Your task to perform on an android device: Add "razer huntsman" to the cart on ebay.com, then select checkout. Image 0: 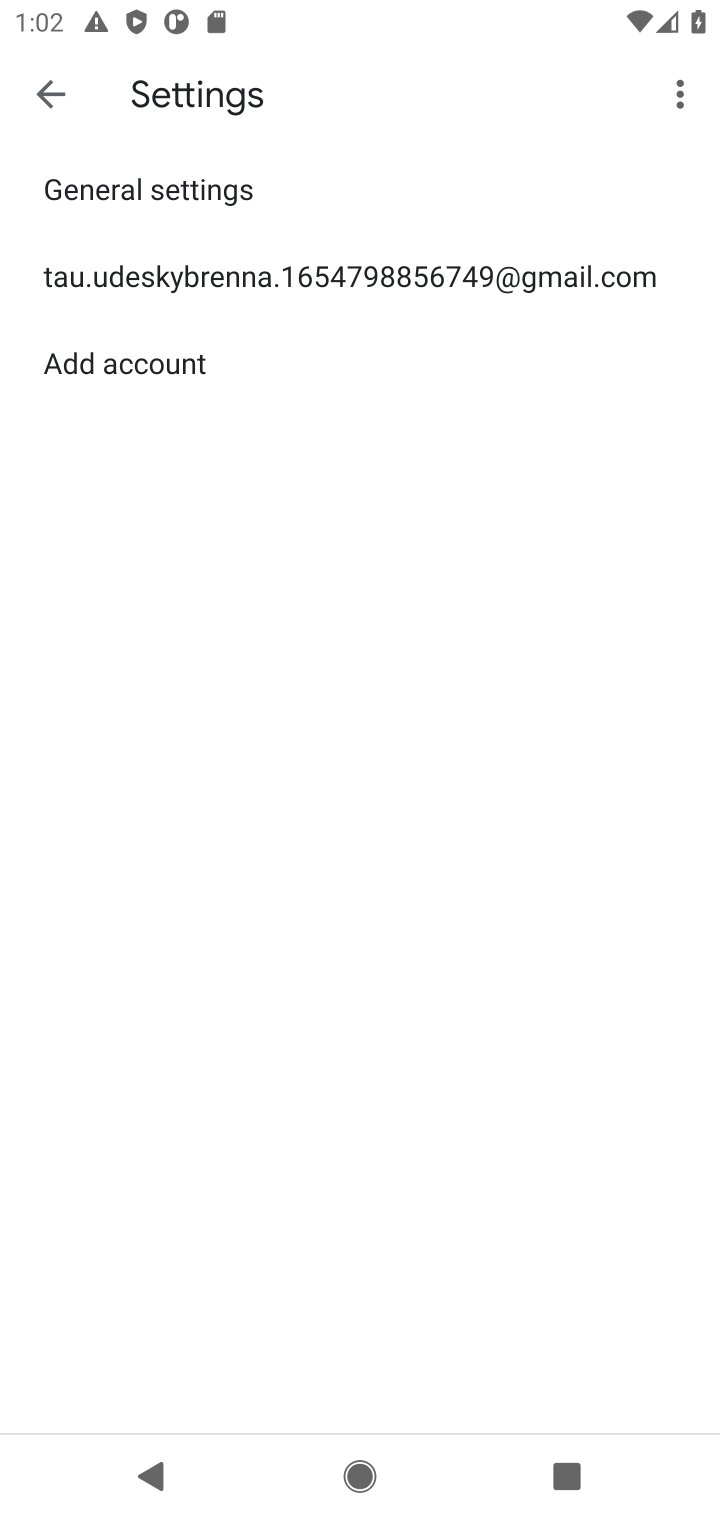
Step 0: press home button
Your task to perform on an android device: Add "razer huntsman" to the cart on ebay.com, then select checkout. Image 1: 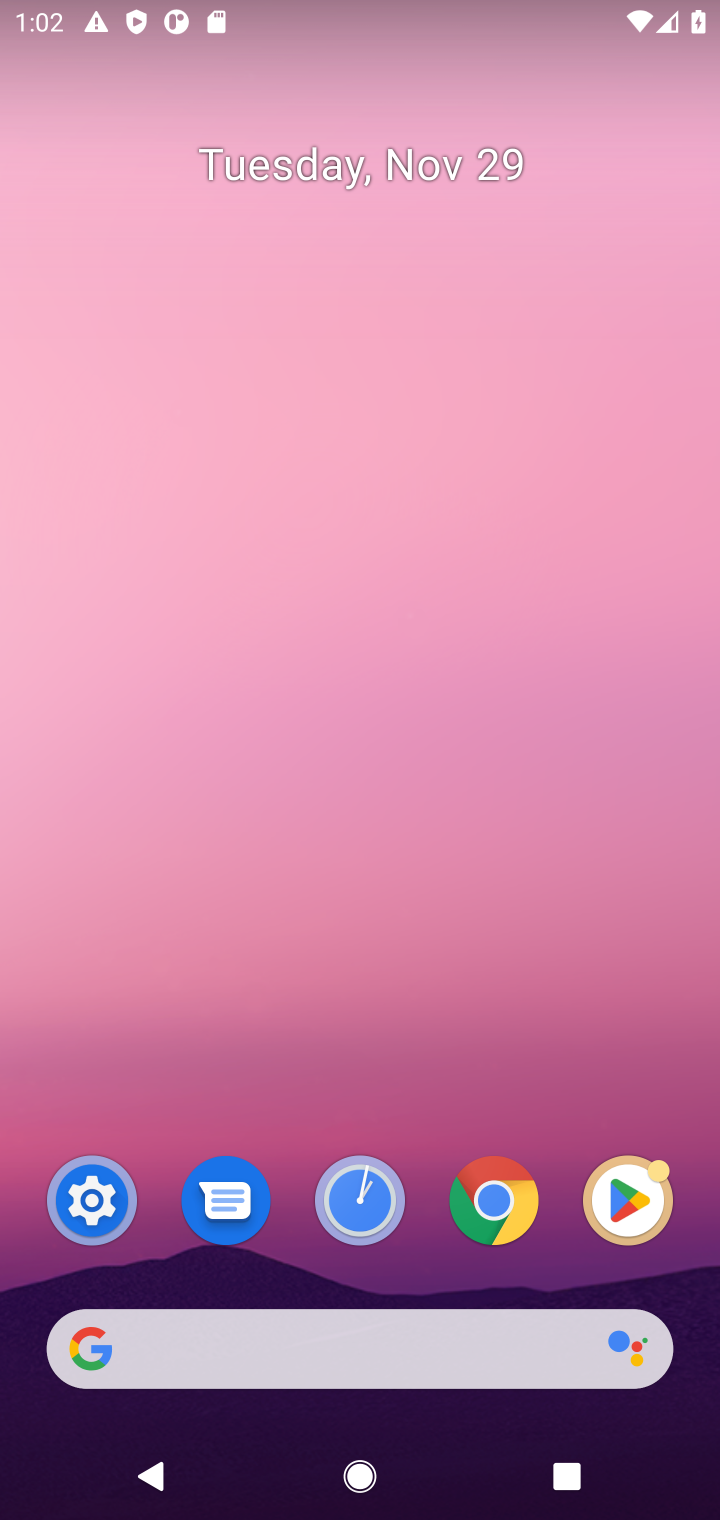
Step 1: click (336, 1364)
Your task to perform on an android device: Add "razer huntsman" to the cart on ebay.com, then select checkout. Image 2: 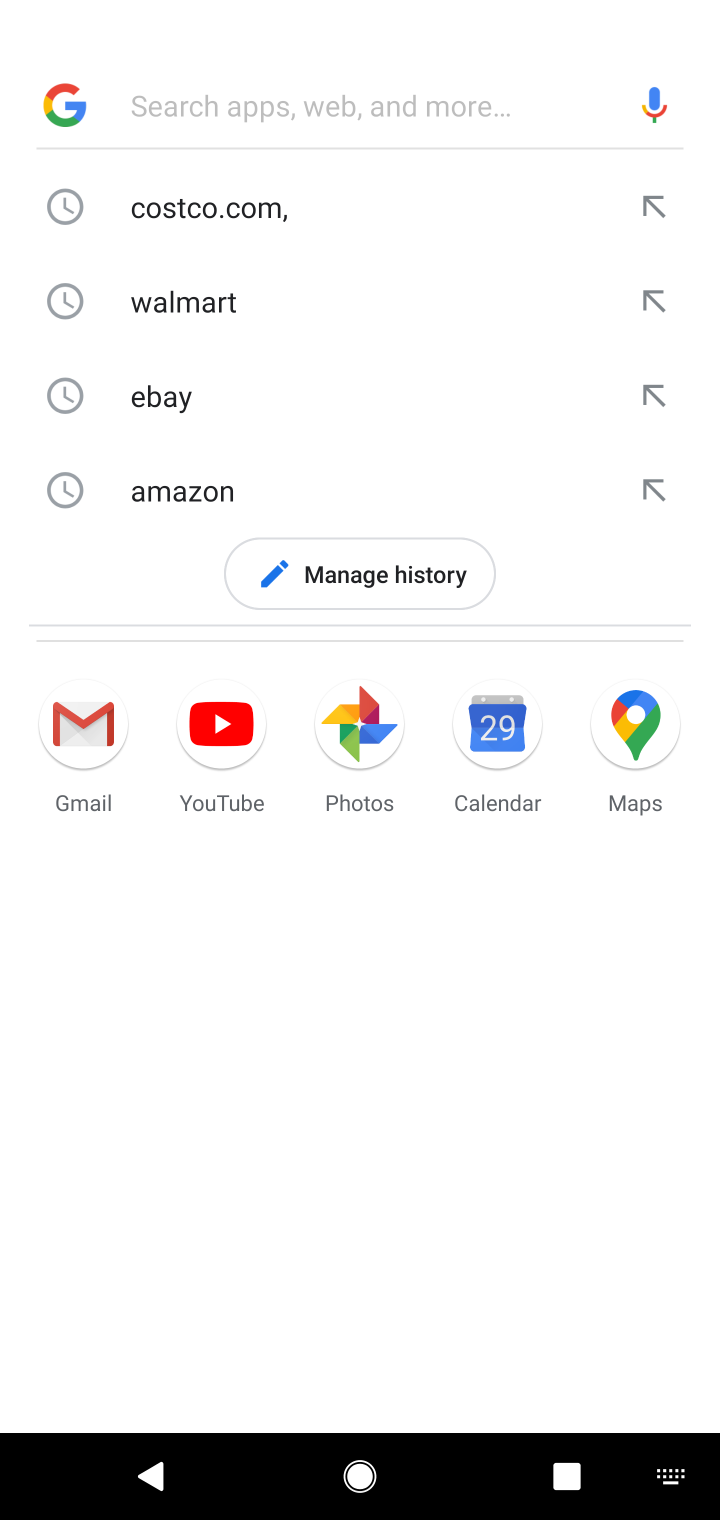
Step 2: type "ebay.com"
Your task to perform on an android device: Add "razer huntsman" to the cart on ebay.com, then select checkout. Image 3: 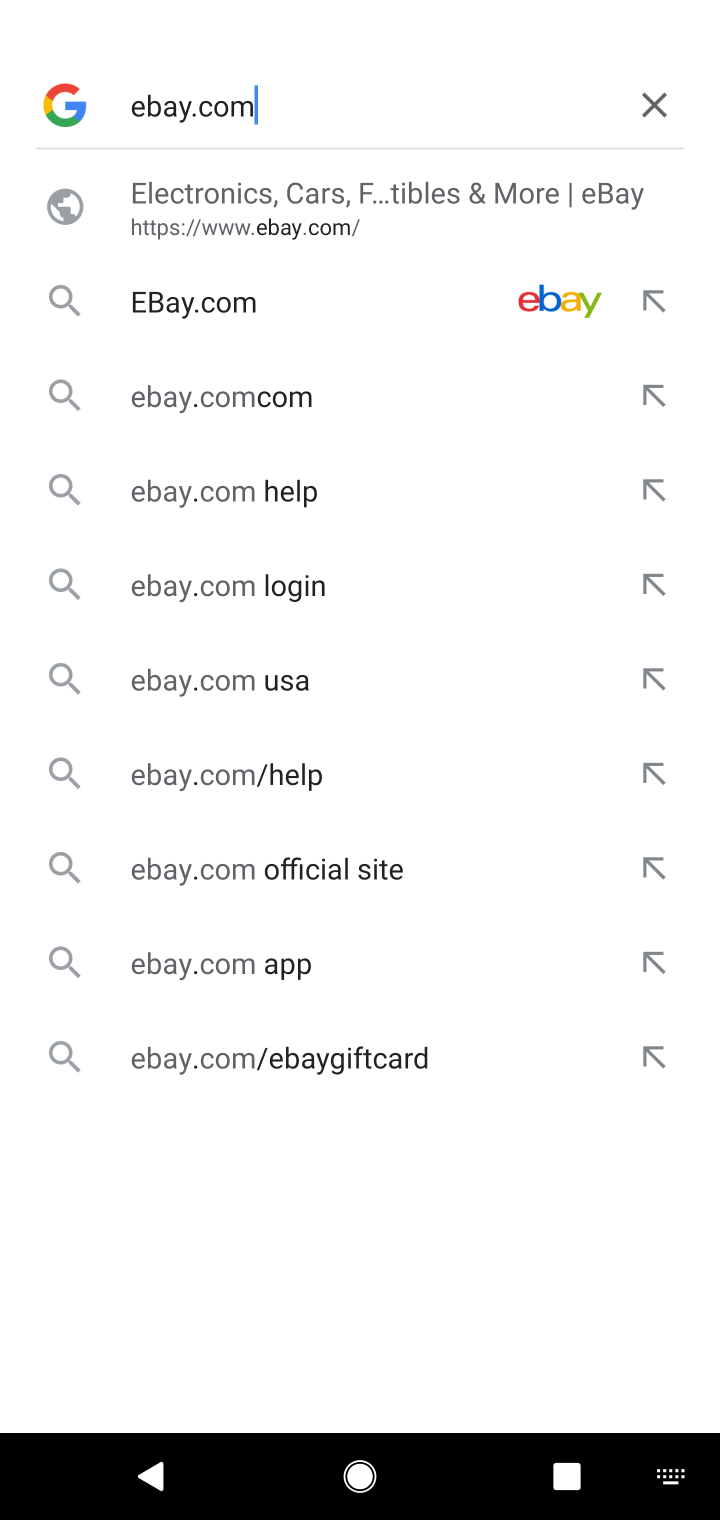
Step 3: click (177, 188)
Your task to perform on an android device: Add "razer huntsman" to the cart on ebay.com, then select checkout. Image 4: 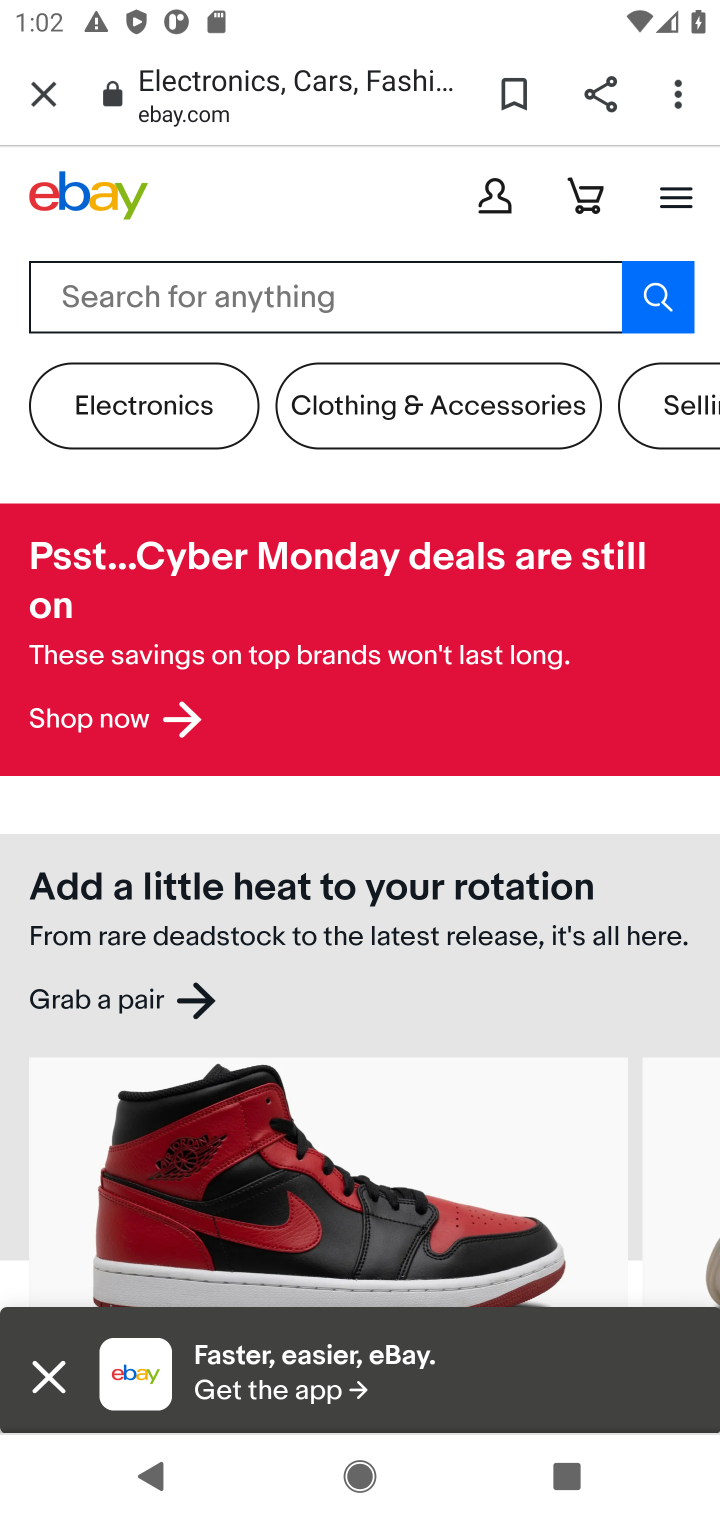
Step 4: task complete